Your task to perform on an android device: Do I have any events tomorrow? Image 0: 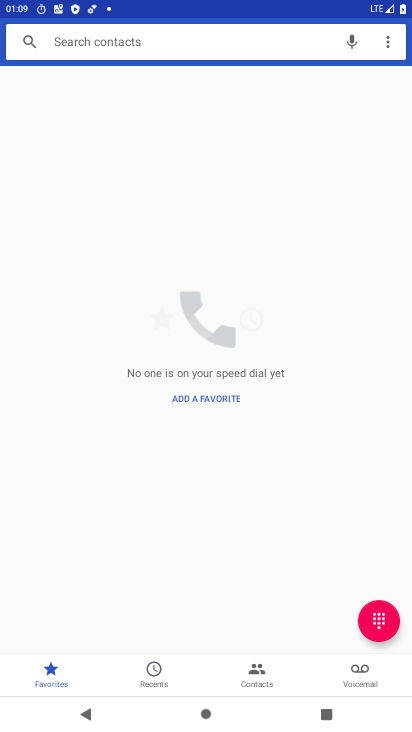
Step 0: press home button
Your task to perform on an android device: Do I have any events tomorrow? Image 1: 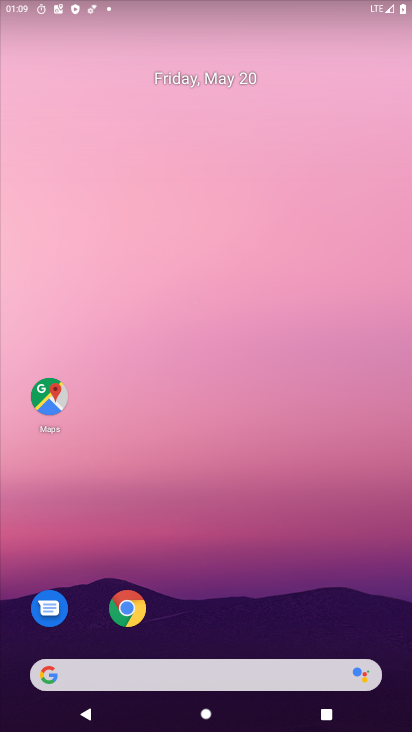
Step 1: drag from (371, 622) to (368, 176)
Your task to perform on an android device: Do I have any events tomorrow? Image 2: 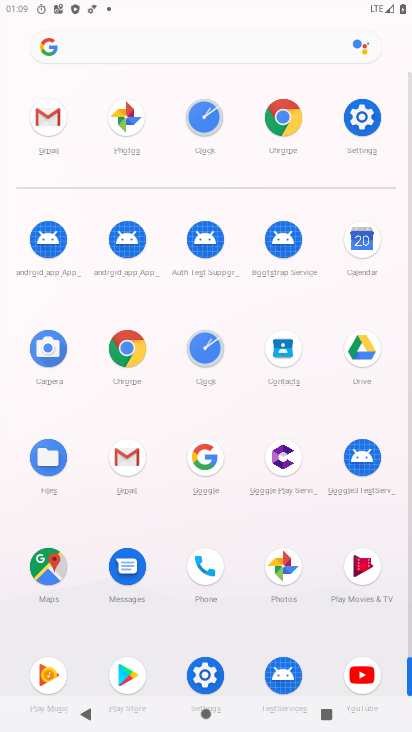
Step 2: click (360, 250)
Your task to perform on an android device: Do I have any events tomorrow? Image 3: 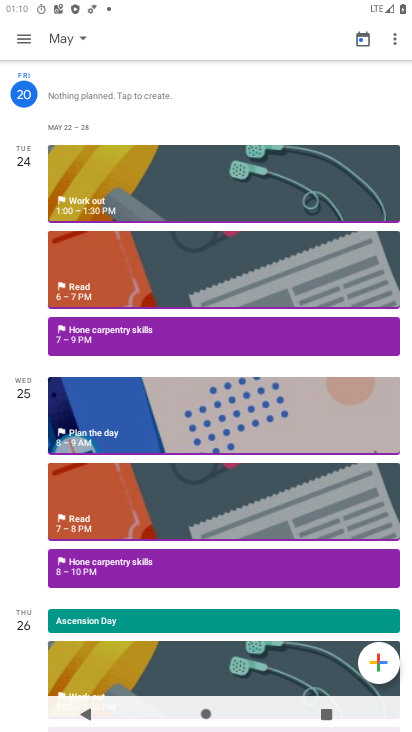
Step 3: click (66, 35)
Your task to perform on an android device: Do I have any events tomorrow? Image 4: 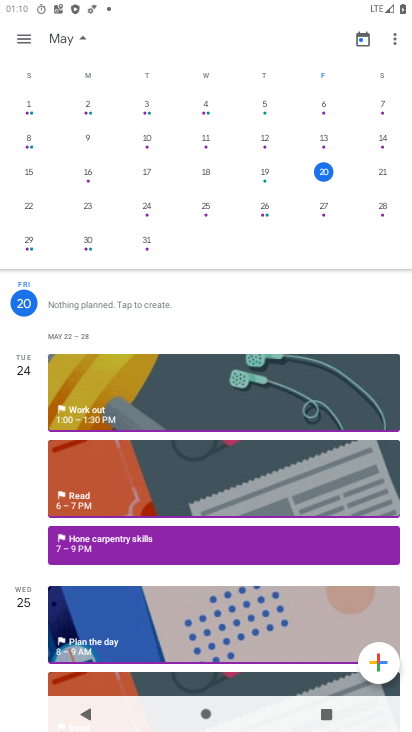
Step 4: task complete